Your task to perform on an android device: What's on my calendar today? Image 0: 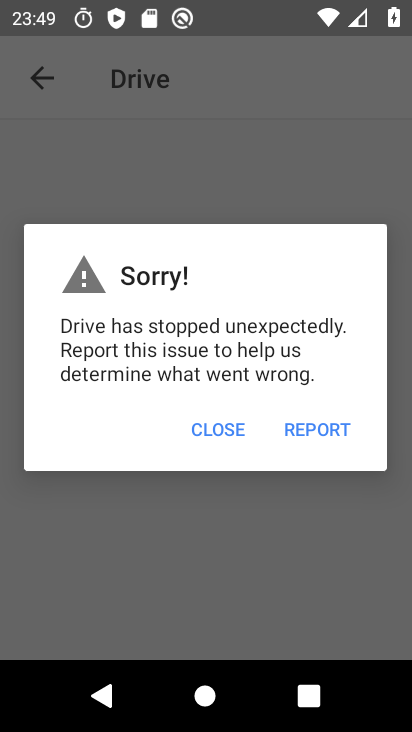
Step 0: press home button
Your task to perform on an android device: What's on my calendar today? Image 1: 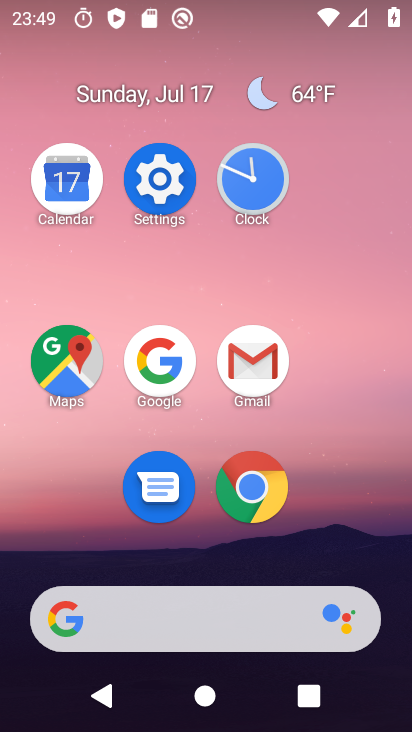
Step 1: click (63, 176)
Your task to perform on an android device: What's on my calendar today? Image 2: 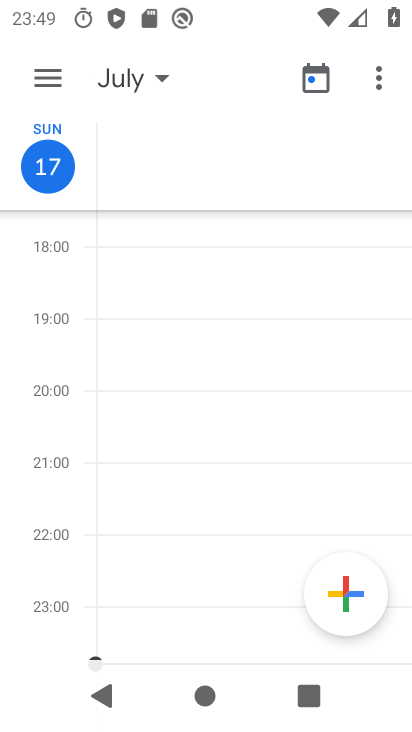
Step 2: task complete